Your task to perform on an android device: Go to accessibility settings Image 0: 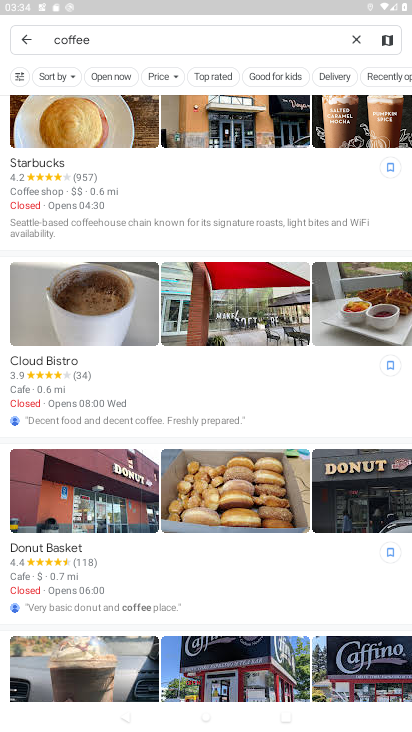
Step 0: press home button
Your task to perform on an android device: Go to accessibility settings Image 1: 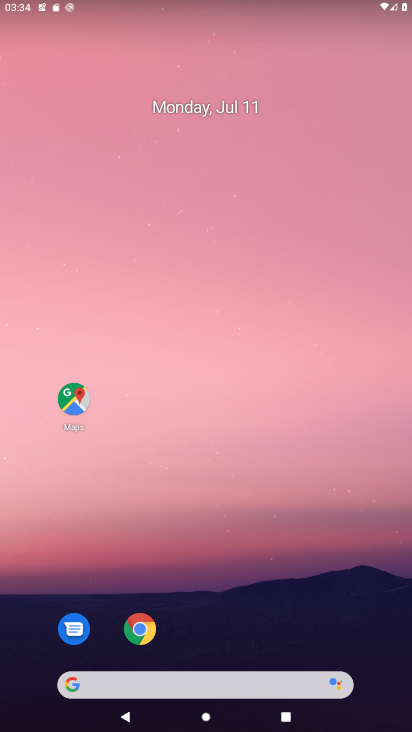
Step 1: drag from (231, 628) to (316, 5)
Your task to perform on an android device: Go to accessibility settings Image 2: 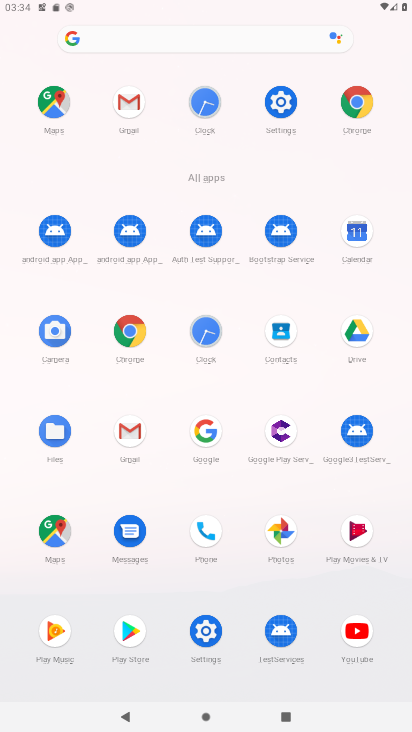
Step 2: click (277, 104)
Your task to perform on an android device: Go to accessibility settings Image 3: 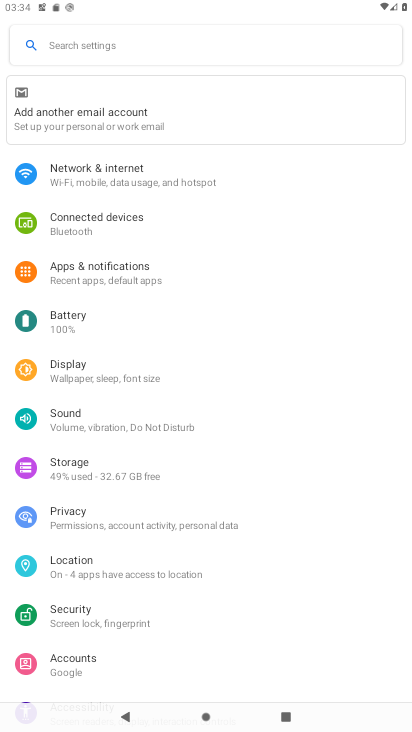
Step 3: drag from (105, 670) to (230, 13)
Your task to perform on an android device: Go to accessibility settings Image 4: 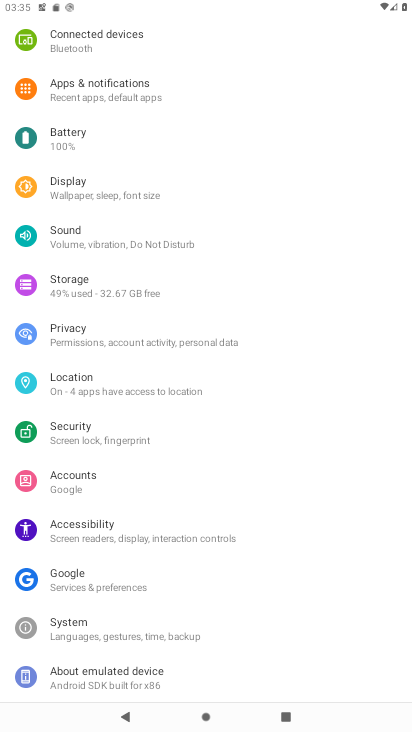
Step 4: click (70, 523)
Your task to perform on an android device: Go to accessibility settings Image 5: 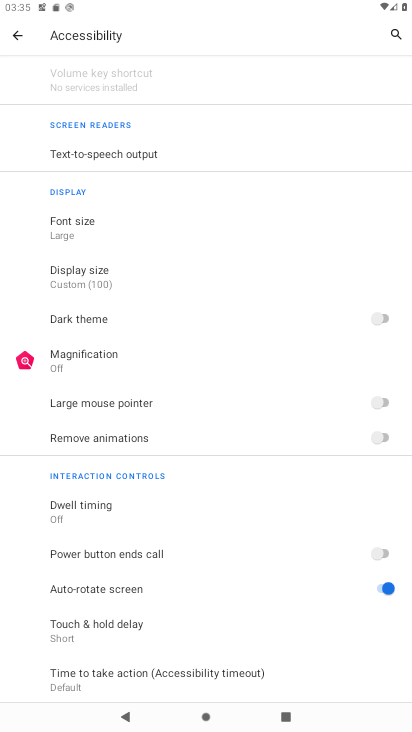
Step 5: task complete